Your task to perform on an android device: Open calendar and show me the fourth week of next month Image 0: 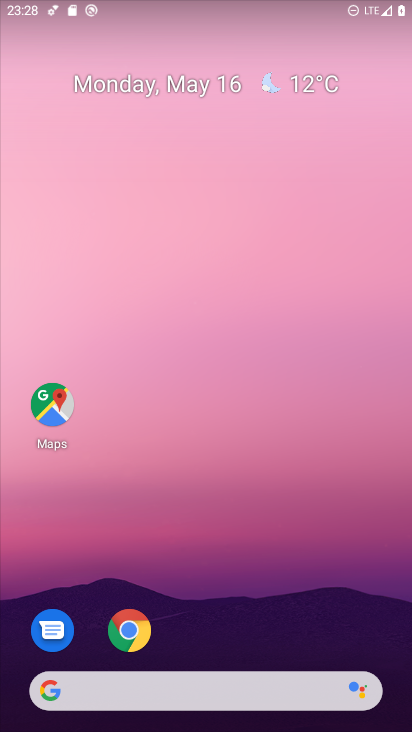
Step 0: drag from (266, 625) to (290, 166)
Your task to perform on an android device: Open calendar and show me the fourth week of next month Image 1: 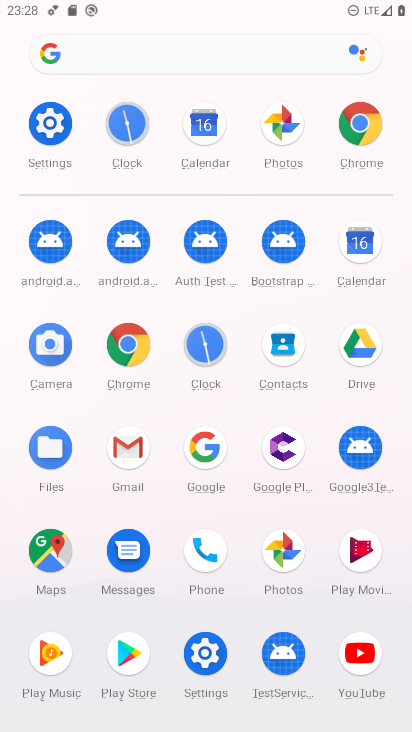
Step 1: click (206, 127)
Your task to perform on an android device: Open calendar and show me the fourth week of next month Image 2: 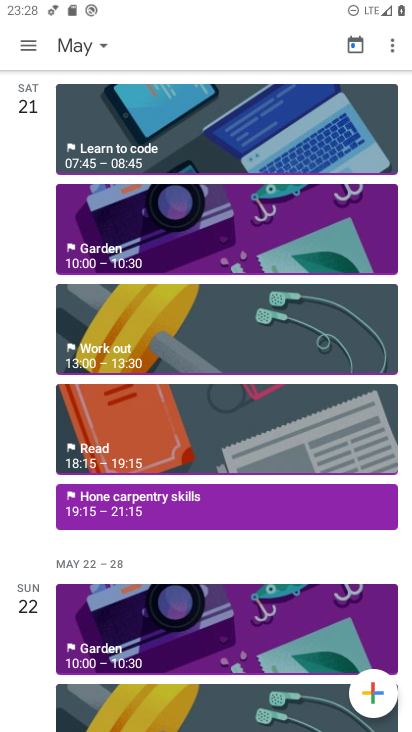
Step 2: click (30, 42)
Your task to perform on an android device: Open calendar and show me the fourth week of next month Image 3: 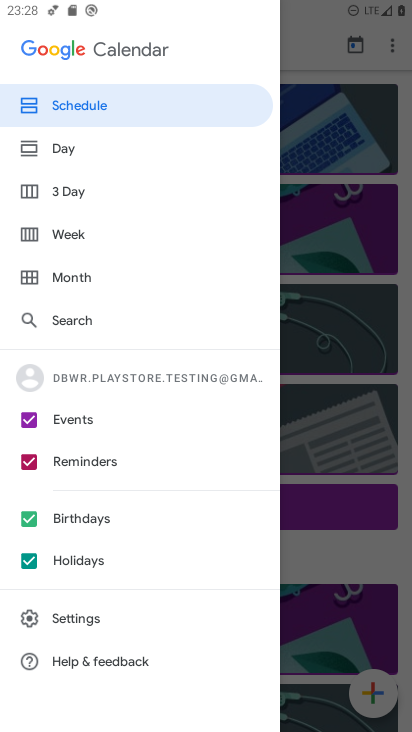
Step 3: click (53, 276)
Your task to perform on an android device: Open calendar and show me the fourth week of next month Image 4: 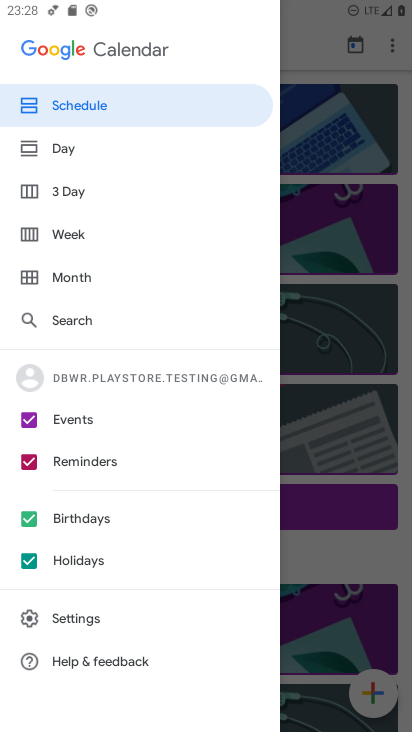
Step 4: click (59, 271)
Your task to perform on an android device: Open calendar and show me the fourth week of next month Image 5: 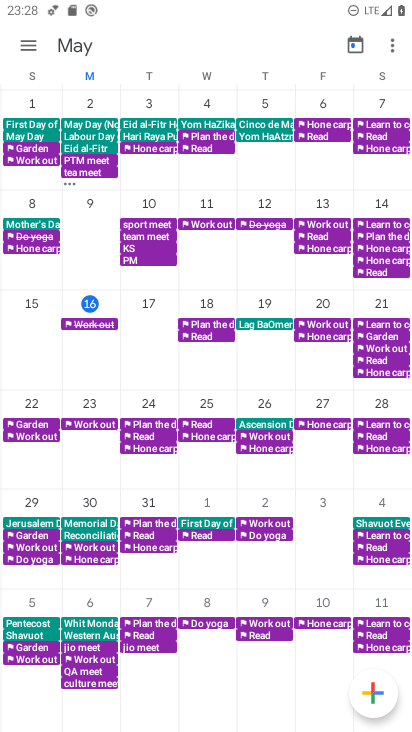
Step 5: drag from (329, 379) to (0, 345)
Your task to perform on an android device: Open calendar and show me the fourth week of next month Image 6: 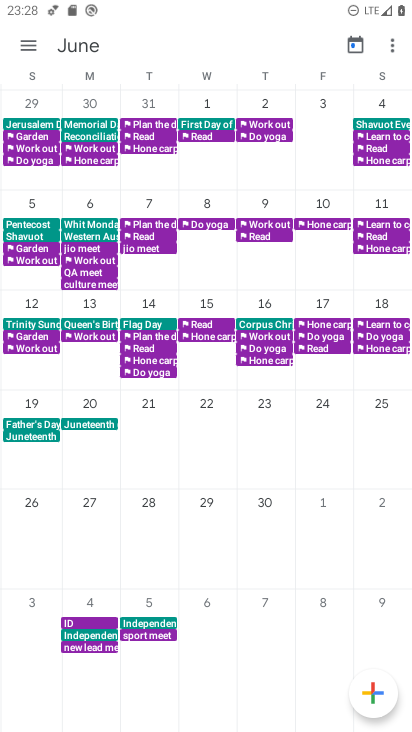
Step 6: click (29, 495)
Your task to perform on an android device: Open calendar and show me the fourth week of next month Image 7: 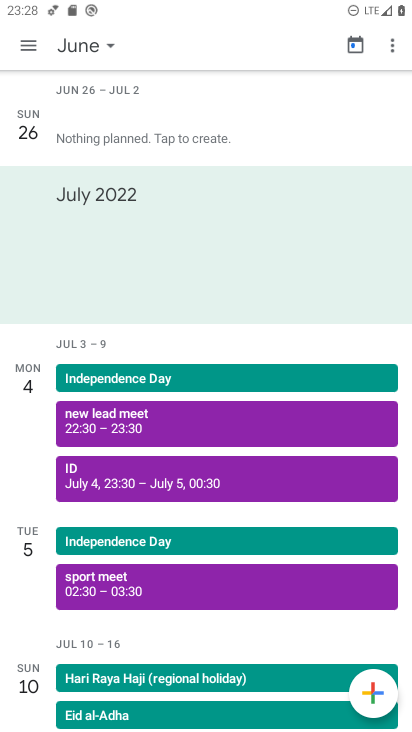
Step 7: click (31, 33)
Your task to perform on an android device: Open calendar and show me the fourth week of next month Image 8: 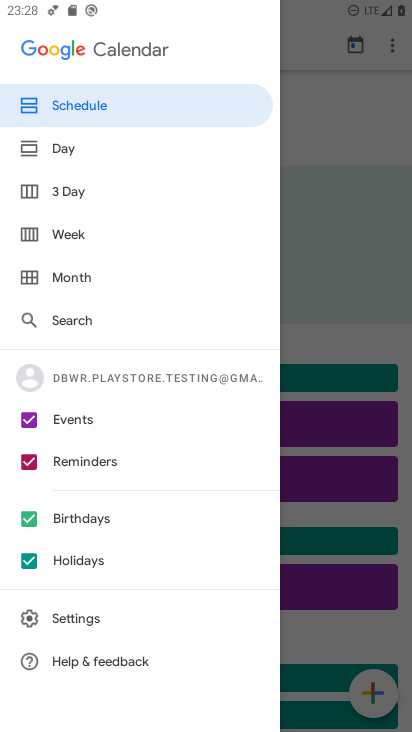
Step 8: click (37, 229)
Your task to perform on an android device: Open calendar and show me the fourth week of next month Image 9: 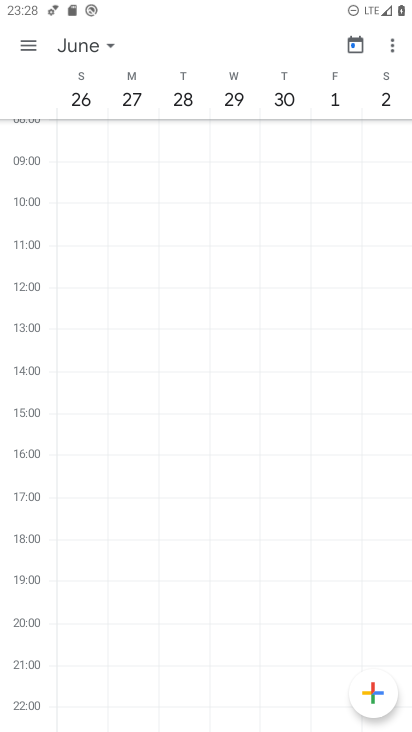
Step 9: task complete